Your task to perform on an android device: Turn off the flashlight Image 0: 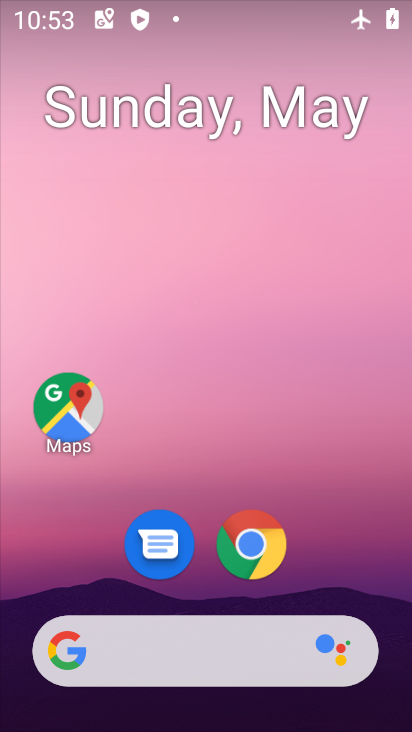
Step 0: drag from (340, 504) to (345, 230)
Your task to perform on an android device: Turn off the flashlight Image 1: 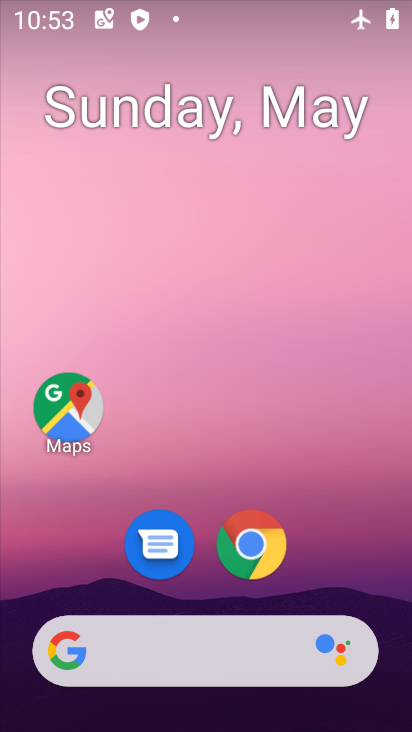
Step 1: drag from (325, 586) to (347, 262)
Your task to perform on an android device: Turn off the flashlight Image 2: 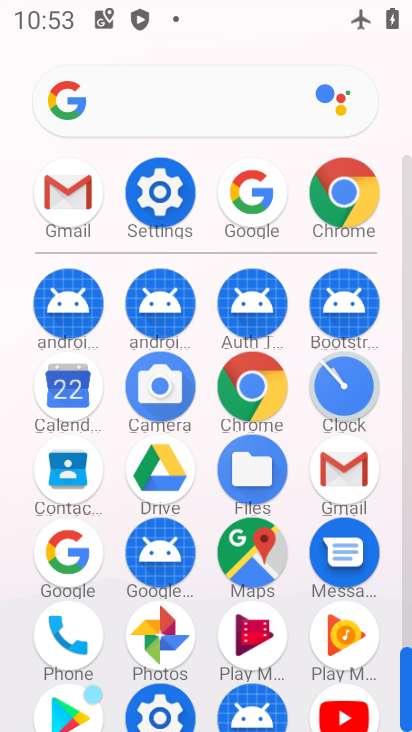
Step 2: click (147, 169)
Your task to perform on an android device: Turn off the flashlight Image 3: 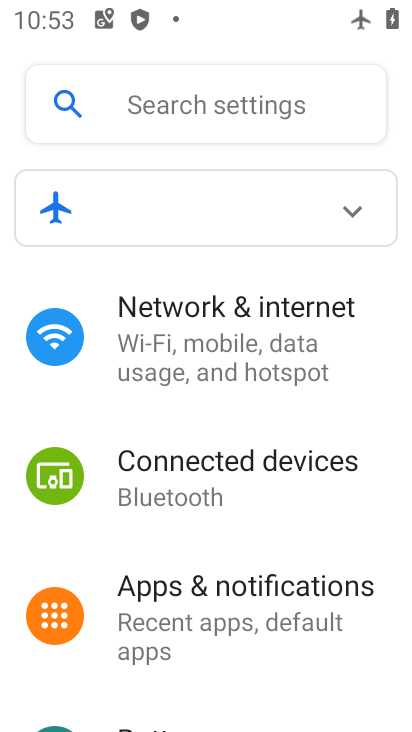
Step 3: task complete